Your task to perform on an android device: set the stopwatch Image 0: 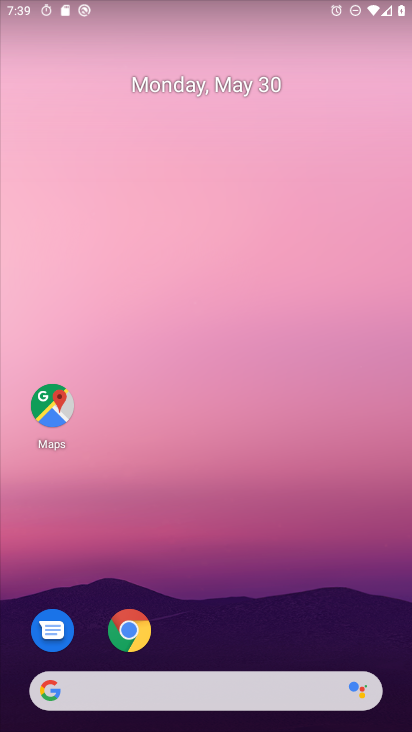
Step 0: drag from (326, 626) to (321, 41)
Your task to perform on an android device: set the stopwatch Image 1: 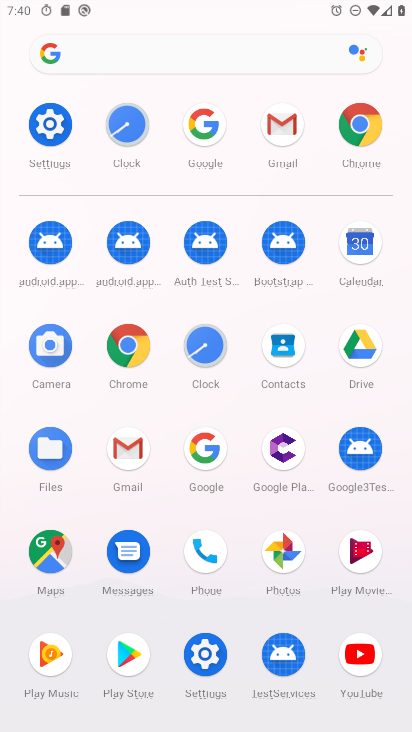
Step 1: click (201, 333)
Your task to perform on an android device: set the stopwatch Image 2: 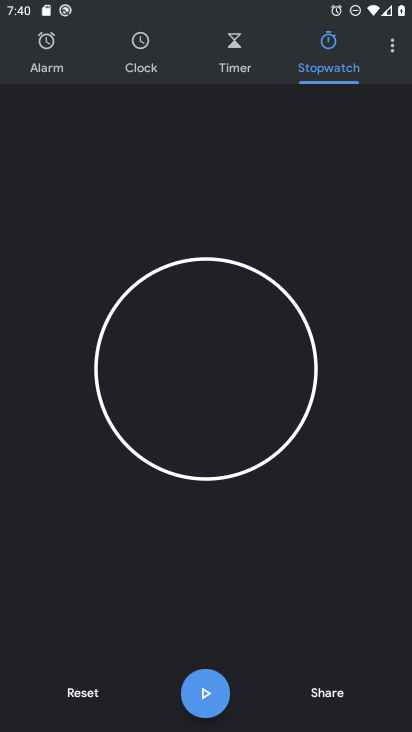
Step 2: click (207, 688)
Your task to perform on an android device: set the stopwatch Image 3: 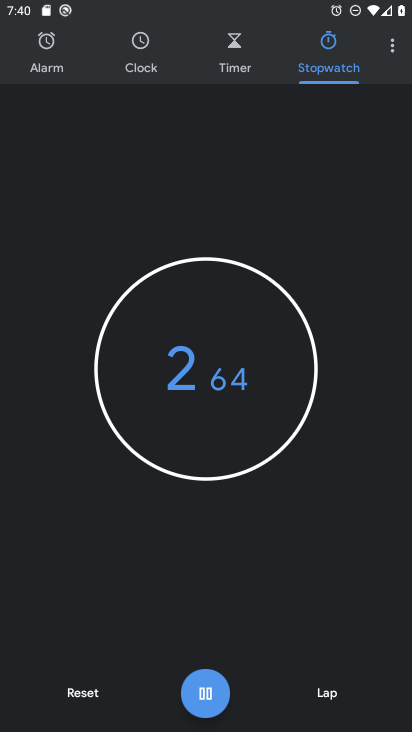
Step 3: click (207, 688)
Your task to perform on an android device: set the stopwatch Image 4: 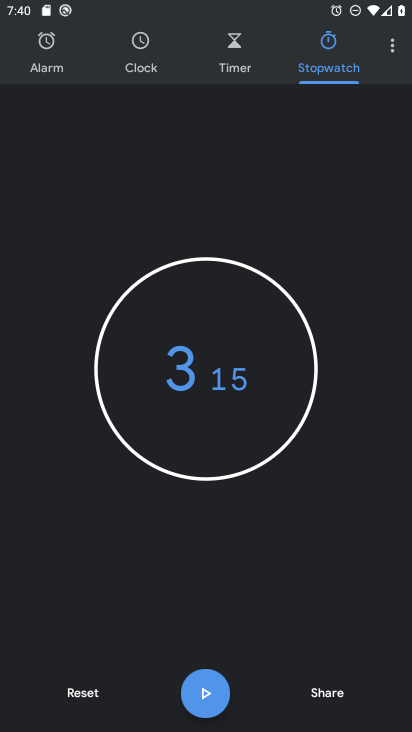
Step 4: task complete